Your task to perform on an android device: set an alarm Image 0: 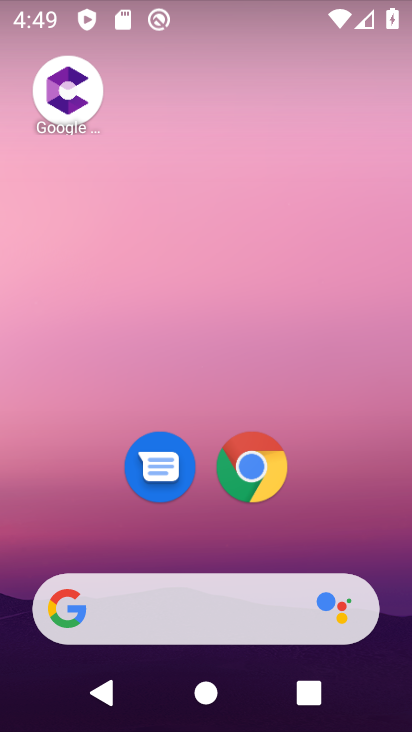
Step 0: drag from (329, 468) to (305, 1)
Your task to perform on an android device: set an alarm Image 1: 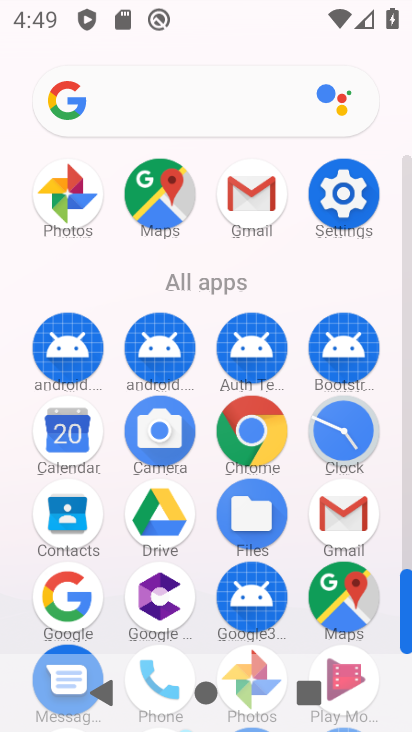
Step 1: click (344, 426)
Your task to perform on an android device: set an alarm Image 2: 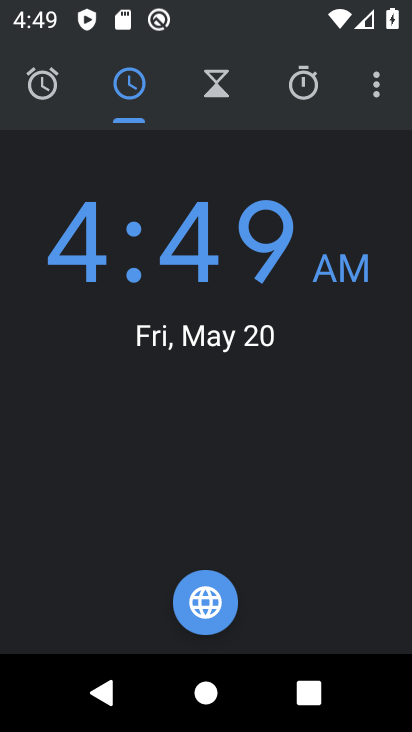
Step 2: click (49, 85)
Your task to perform on an android device: set an alarm Image 3: 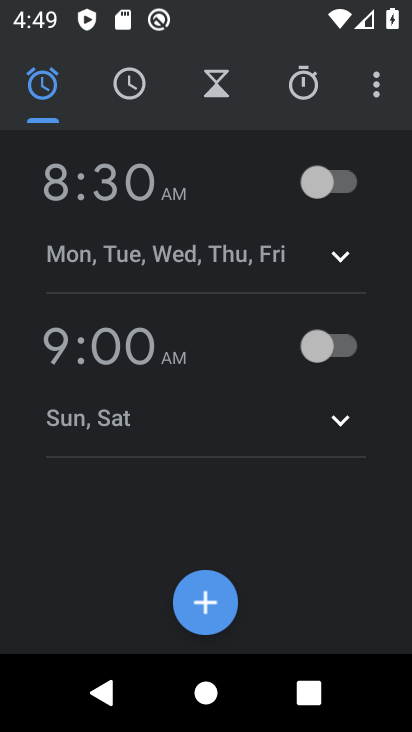
Step 3: click (210, 605)
Your task to perform on an android device: set an alarm Image 4: 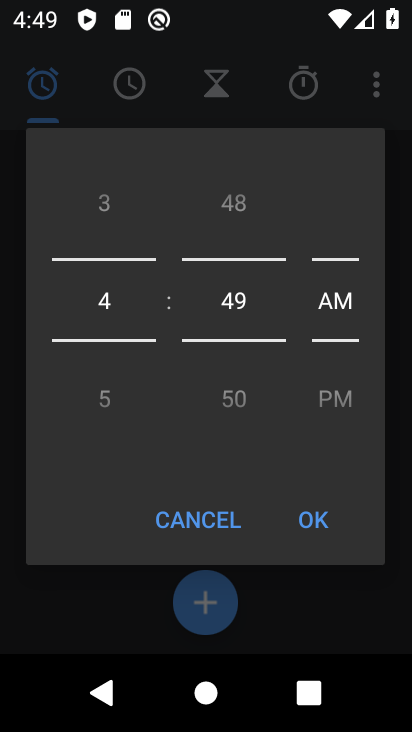
Step 4: click (306, 526)
Your task to perform on an android device: set an alarm Image 5: 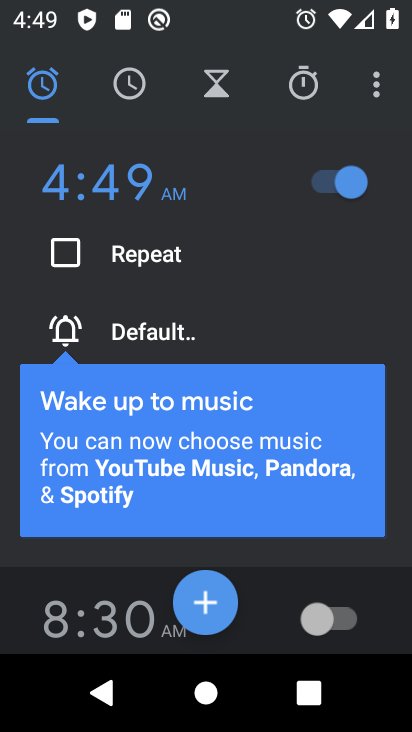
Step 5: task complete